Your task to perform on an android device: View the shopping cart on walmart. Image 0: 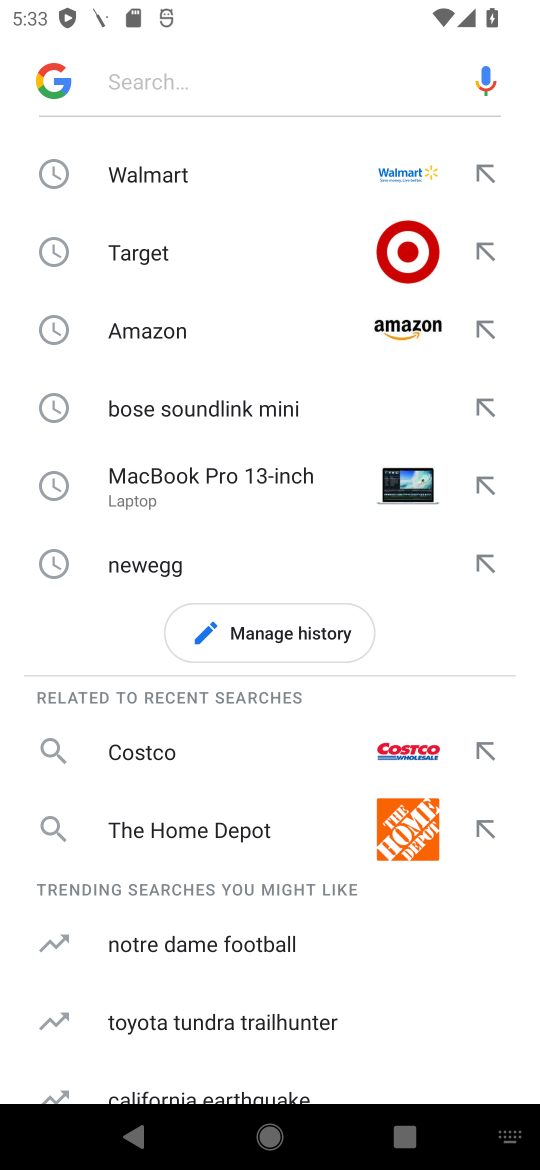
Step 0: press home button
Your task to perform on an android device: View the shopping cart on walmart. Image 1: 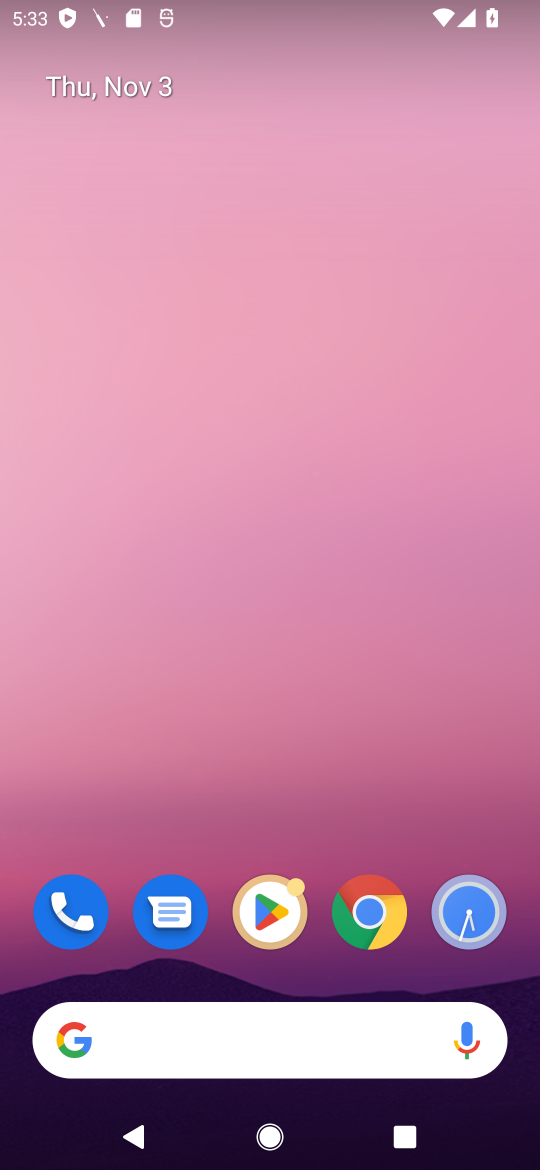
Step 1: click (365, 908)
Your task to perform on an android device: View the shopping cart on walmart. Image 2: 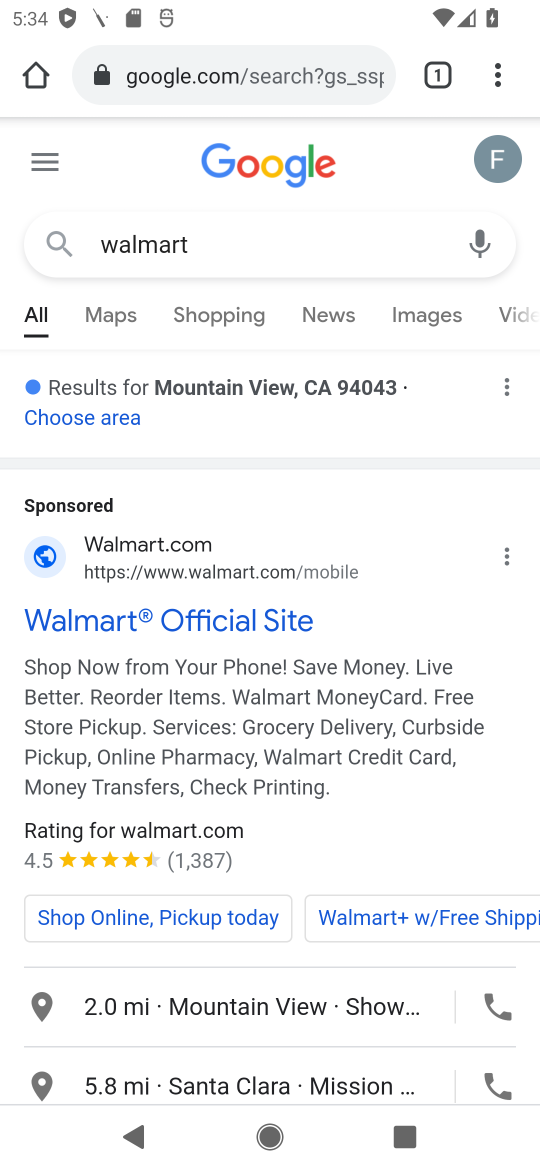
Step 2: click (77, 638)
Your task to perform on an android device: View the shopping cart on walmart. Image 3: 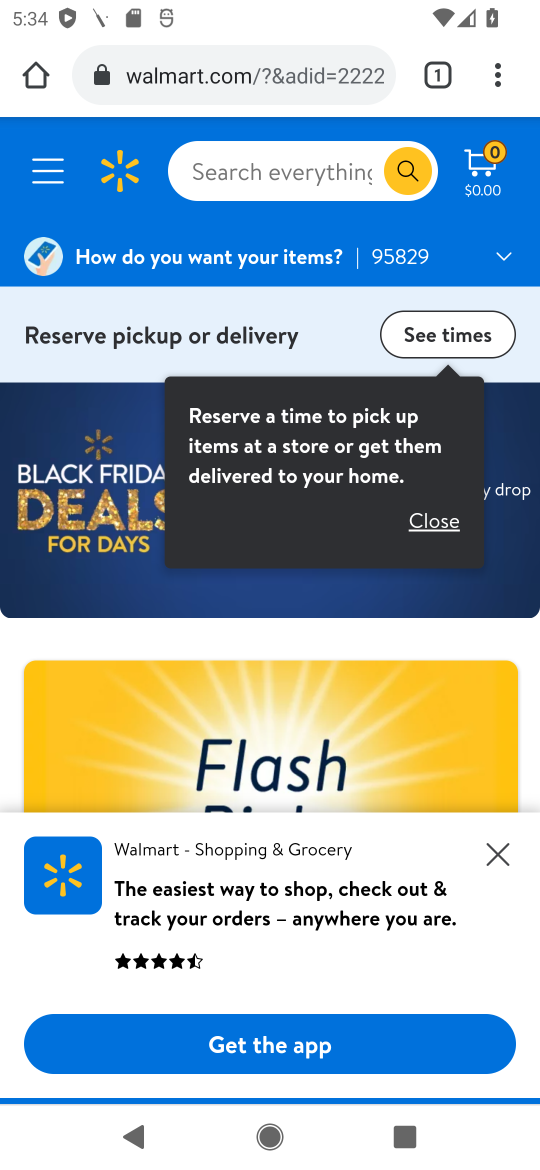
Step 3: click (488, 164)
Your task to perform on an android device: View the shopping cart on walmart. Image 4: 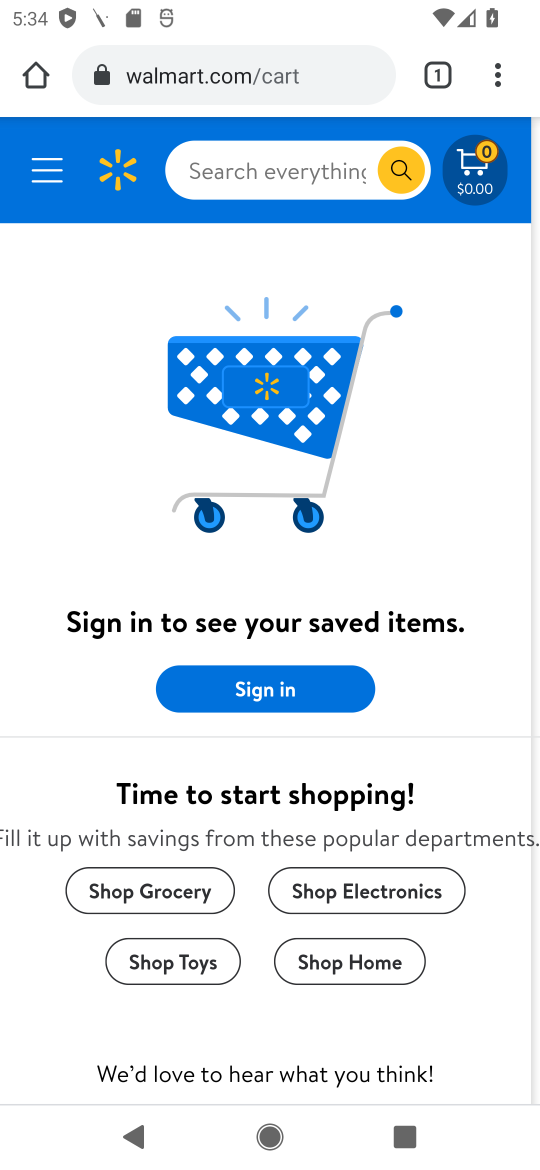
Step 4: task complete